Your task to perform on an android device: change the clock style Image 0: 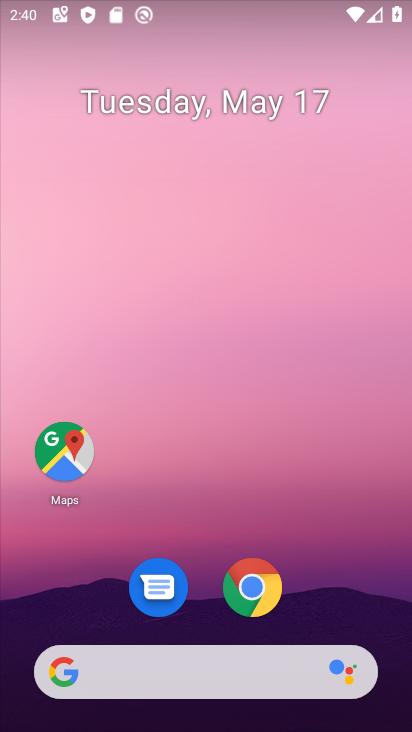
Step 0: drag from (201, 683) to (221, 8)
Your task to perform on an android device: change the clock style Image 1: 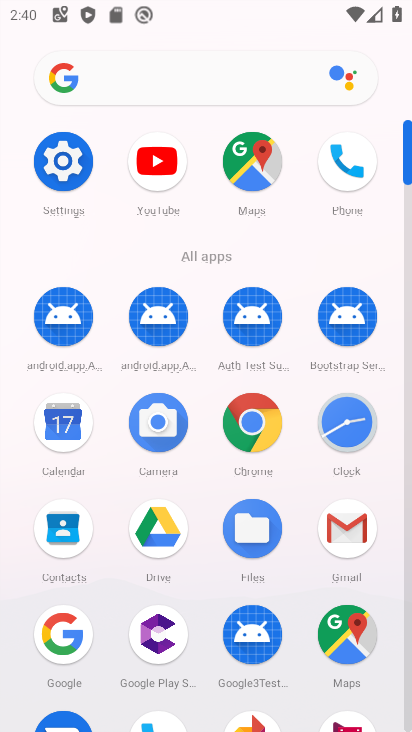
Step 1: click (346, 437)
Your task to perform on an android device: change the clock style Image 2: 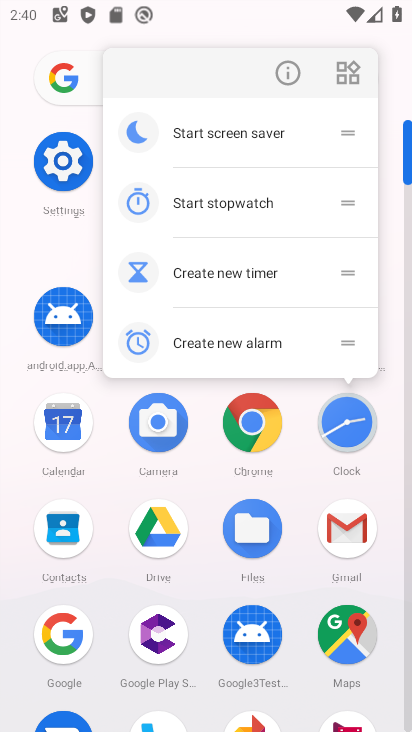
Step 2: click (392, 275)
Your task to perform on an android device: change the clock style Image 3: 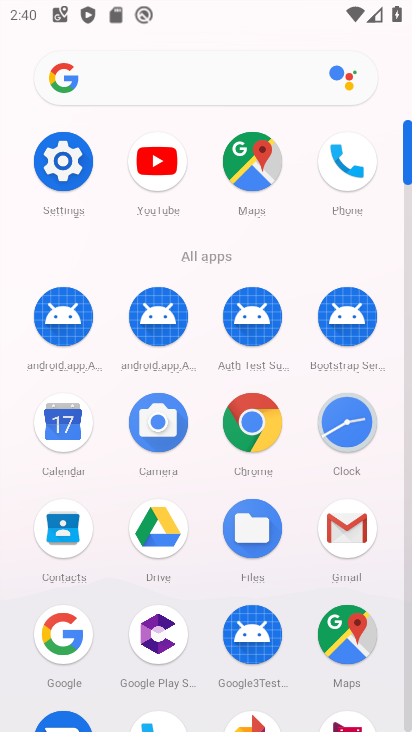
Step 3: click (351, 419)
Your task to perform on an android device: change the clock style Image 4: 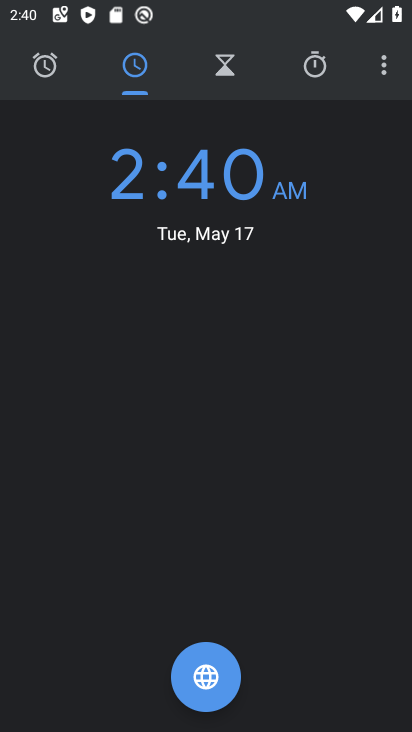
Step 4: click (383, 73)
Your task to perform on an android device: change the clock style Image 5: 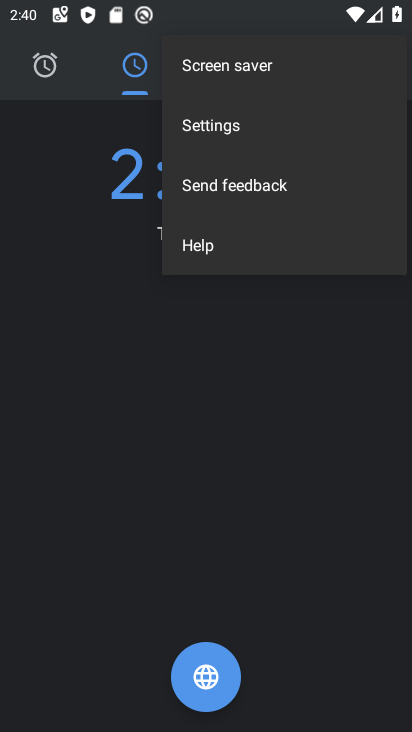
Step 5: click (249, 134)
Your task to perform on an android device: change the clock style Image 6: 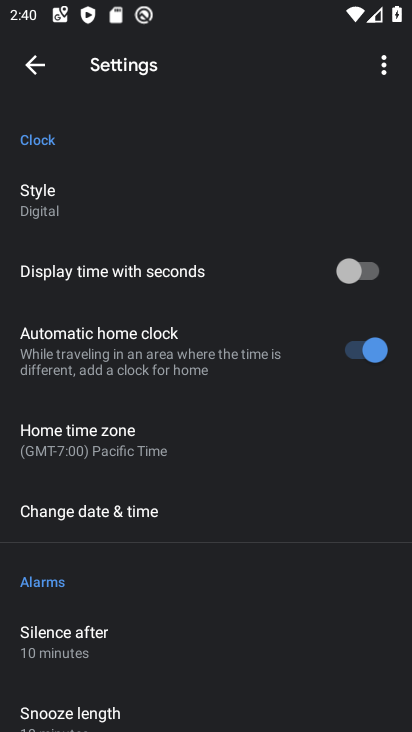
Step 6: drag from (159, 203) to (121, 203)
Your task to perform on an android device: change the clock style Image 7: 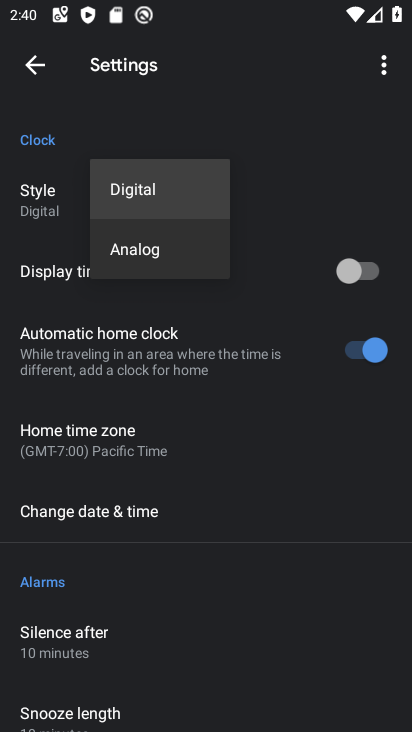
Step 7: click (139, 227)
Your task to perform on an android device: change the clock style Image 8: 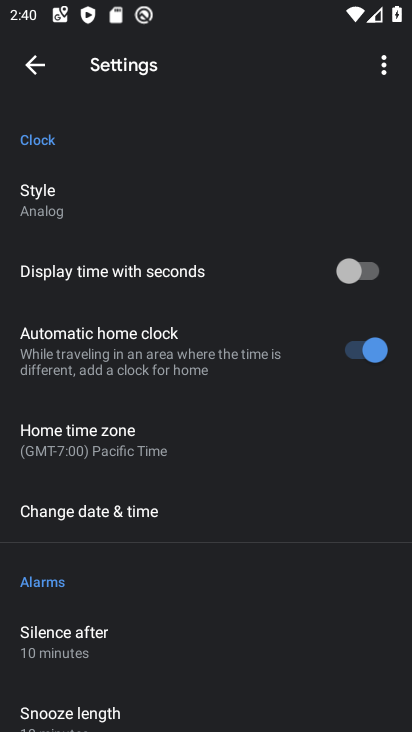
Step 8: task complete